Your task to perform on an android device: check android version Image 0: 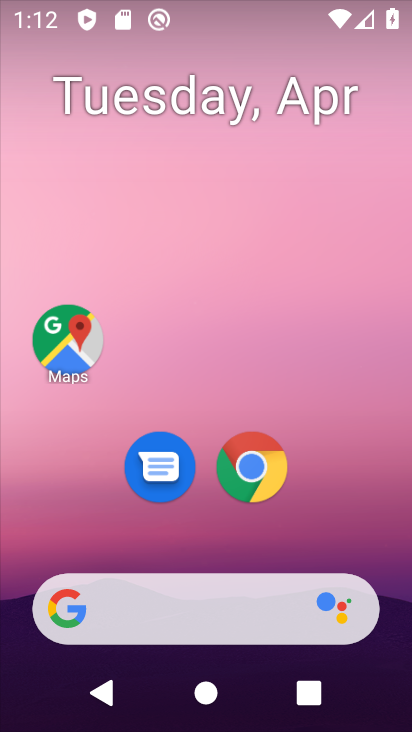
Step 0: drag from (389, 542) to (411, 475)
Your task to perform on an android device: check android version Image 1: 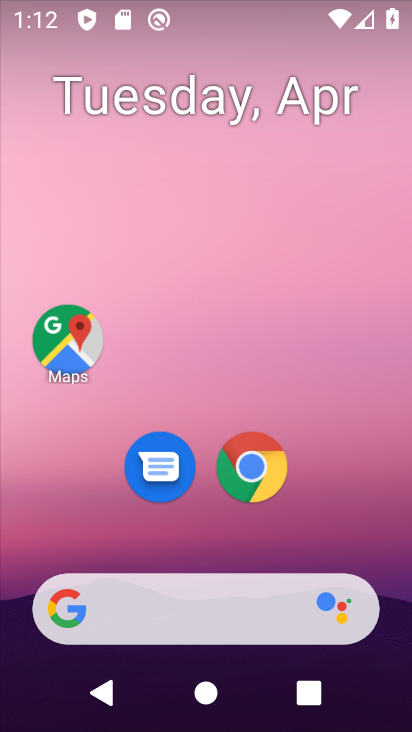
Step 1: drag from (368, 523) to (381, 127)
Your task to perform on an android device: check android version Image 2: 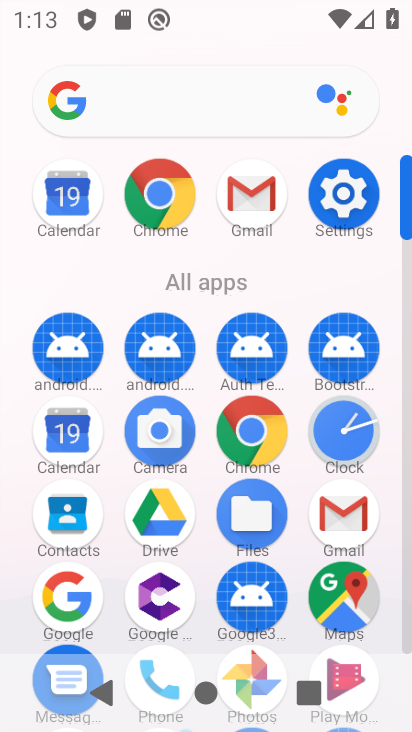
Step 2: click (366, 200)
Your task to perform on an android device: check android version Image 3: 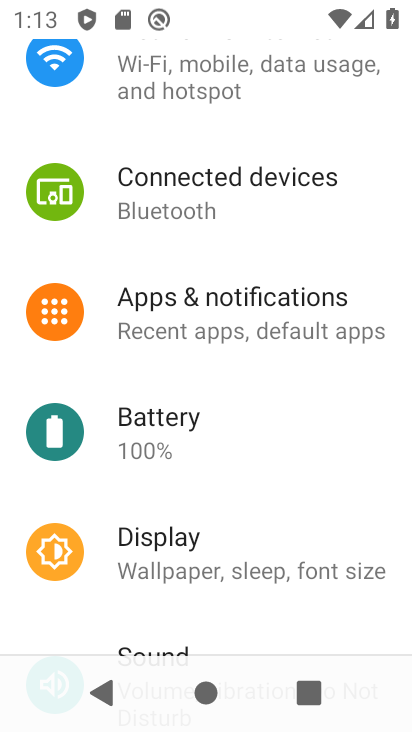
Step 3: drag from (397, 460) to (399, 214)
Your task to perform on an android device: check android version Image 4: 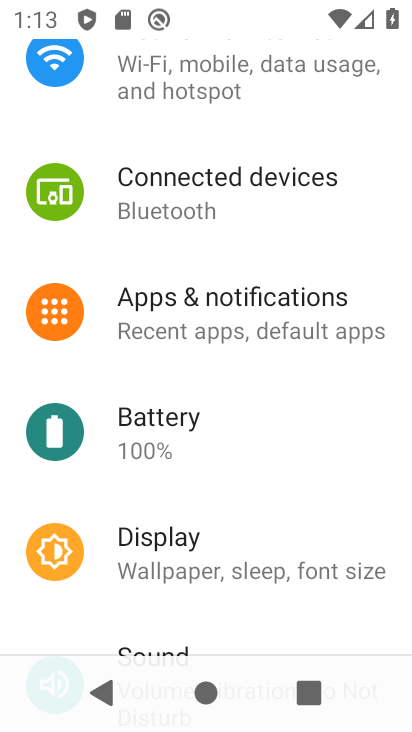
Step 4: drag from (359, 393) to (362, 179)
Your task to perform on an android device: check android version Image 5: 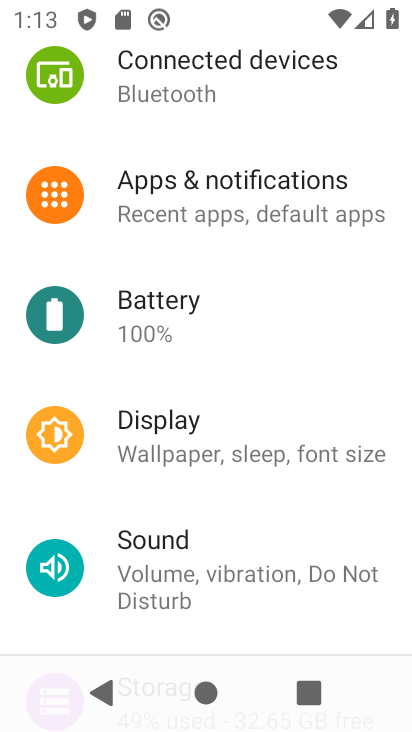
Step 5: drag from (383, 515) to (388, 243)
Your task to perform on an android device: check android version Image 6: 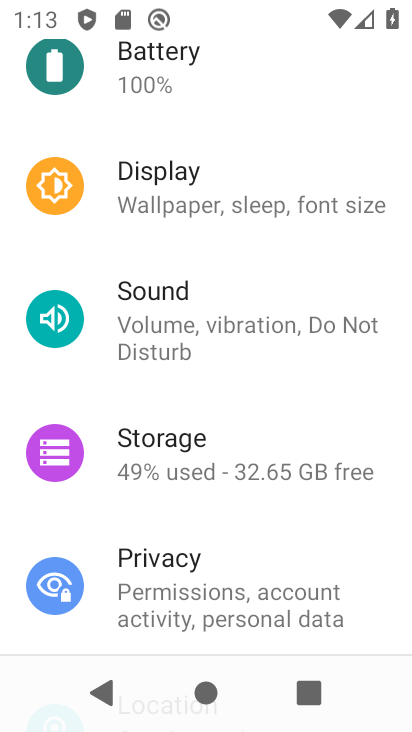
Step 6: drag from (371, 582) to (373, 251)
Your task to perform on an android device: check android version Image 7: 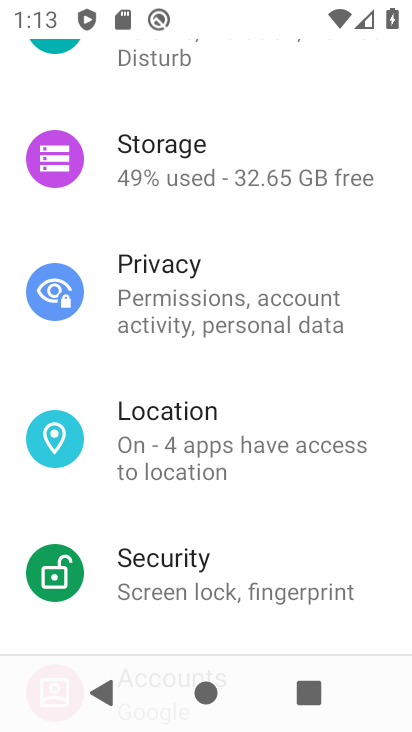
Step 7: drag from (370, 559) to (381, 328)
Your task to perform on an android device: check android version Image 8: 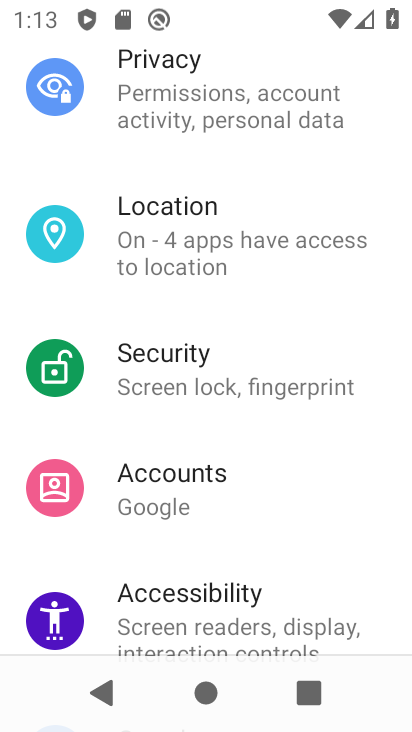
Step 8: drag from (382, 599) to (384, 352)
Your task to perform on an android device: check android version Image 9: 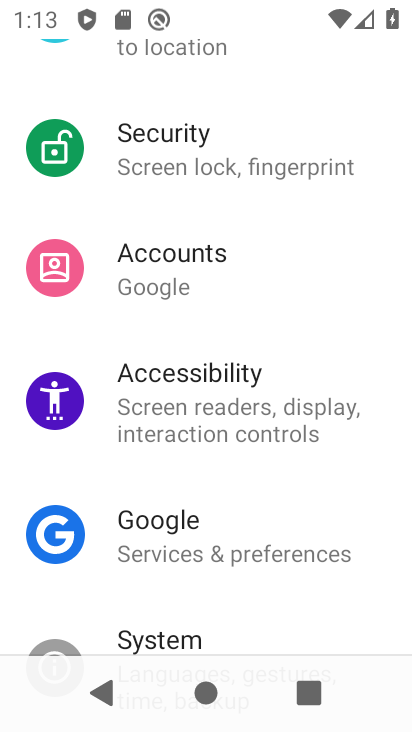
Step 9: drag from (374, 602) to (382, 374)
Your task to perform on an android device: check android version Image 10: 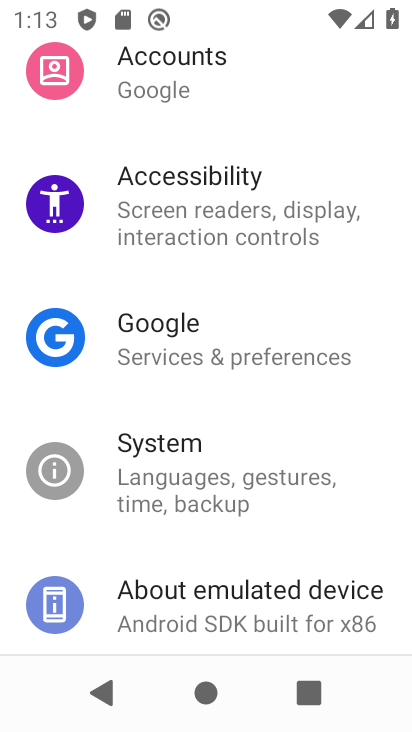
Step 10: click (207, 486)
Your task to perform on an android device: check android version Image 11: 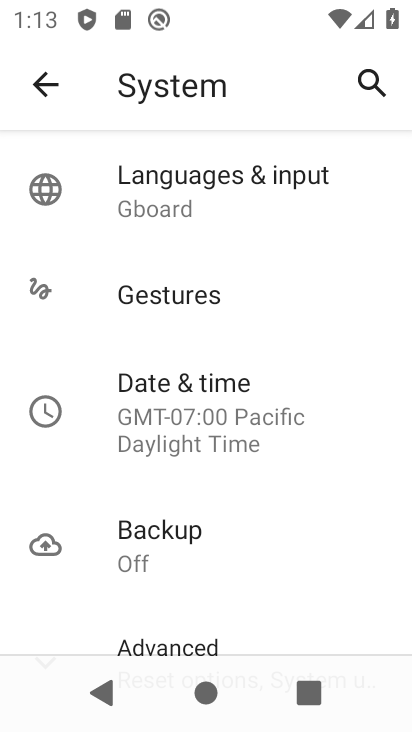
Step 11: drag from (334, 549) to (342, 323)
Your task to perform on an android device: check android version Image 12: 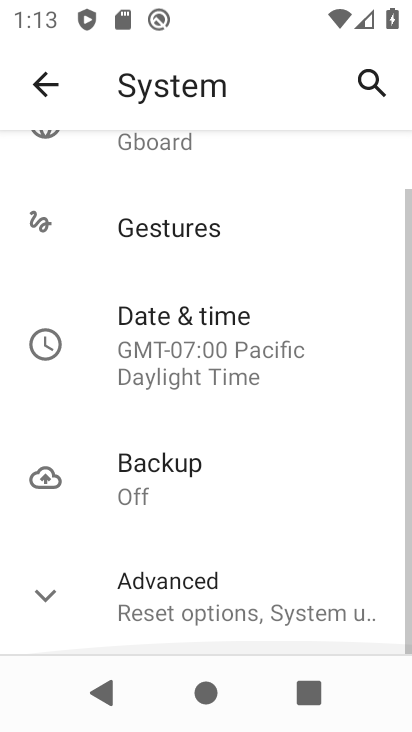
Step 12: click (216, 614)
Your task to perform on an android device: check android version Image 13: 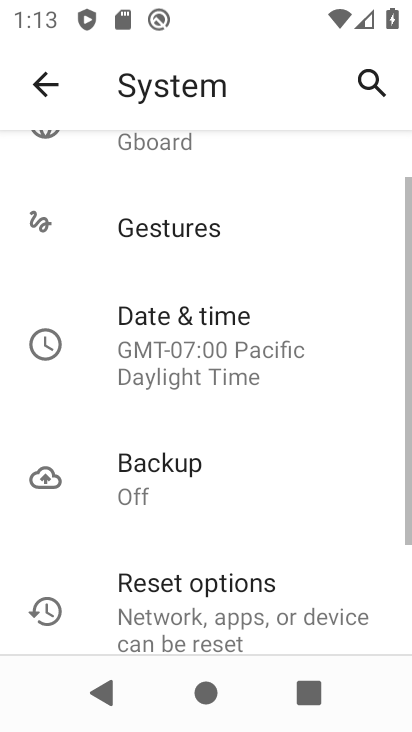
Step 13: drag from (355, 547) to (364, 261)
Your task to perform on an android device: check android version Image 14: 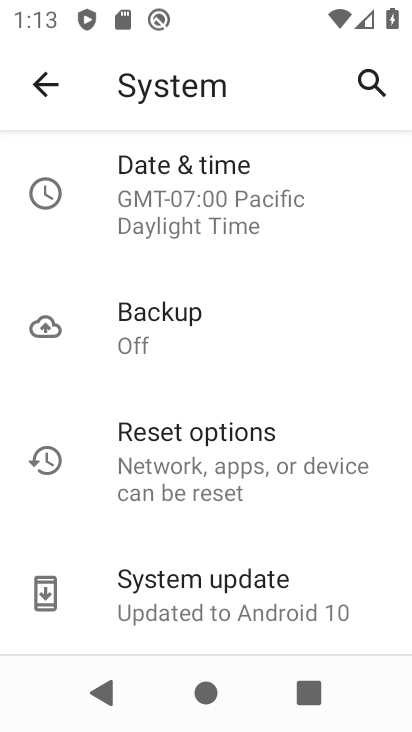
Step 14: click (223, 607)
Your task to perform on an android device: check android version Image 15: 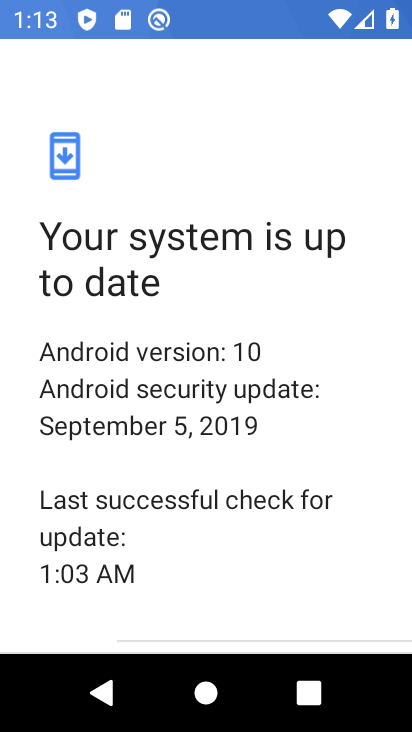
Step 15: task complete